Your task to perform on an android device: Go to Google Image 0: 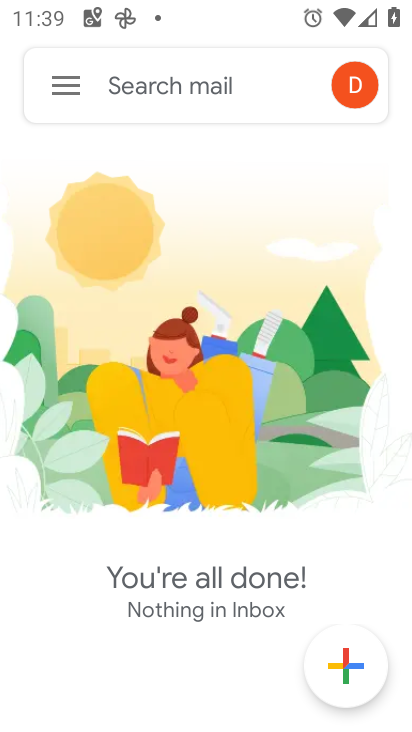
Step 0: press home button
Your task to perform on an android device: Go to Google Image 1: 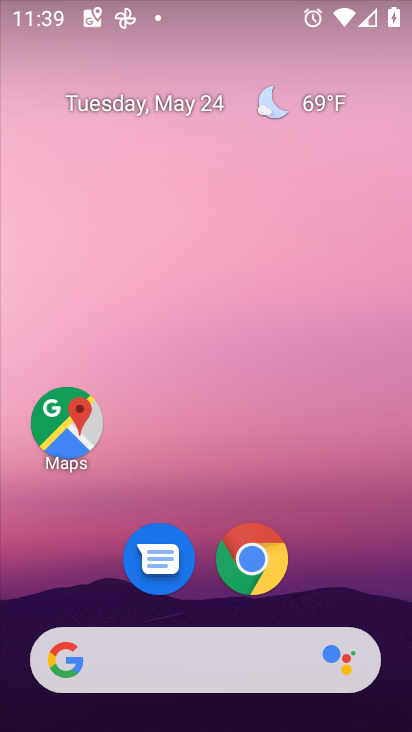
Step 1: drag from (390, 632) to (221, 84)
Your task to perform on an android device: Go to Google Image 2: 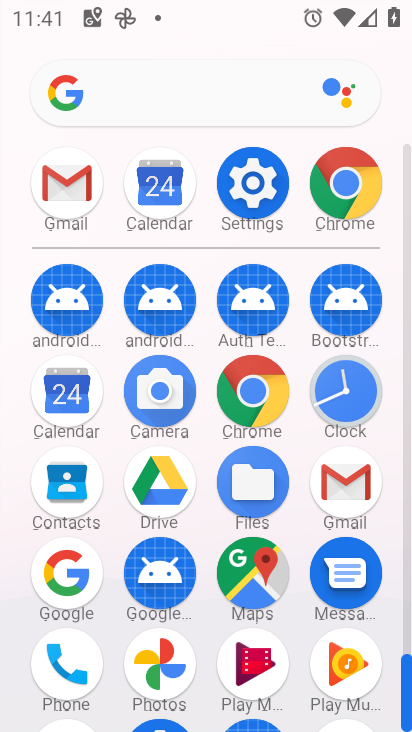
Step 2: click (53, 572)
Your task to perform on an android device: Go to Google Image 3: 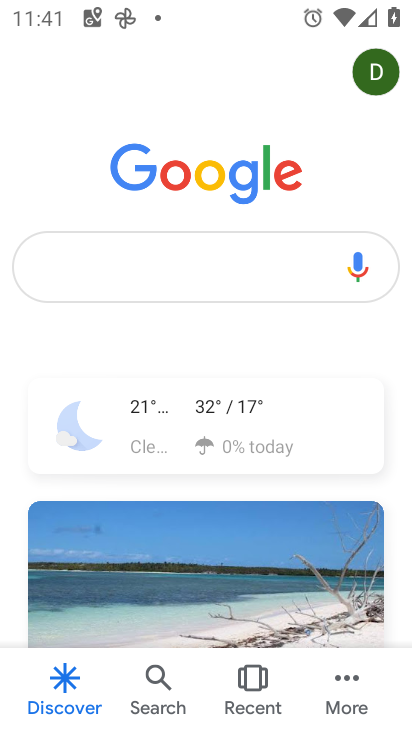
Step 3: task complete